Your task to perform on an android device: Open Chrome and go to settings Image 0: 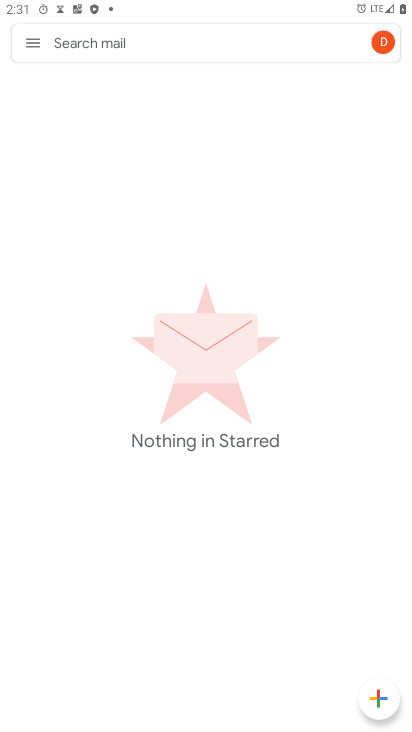
Step 0: press home button
Your task to perform on an android device: Open Chrome and go to settings Image 1: 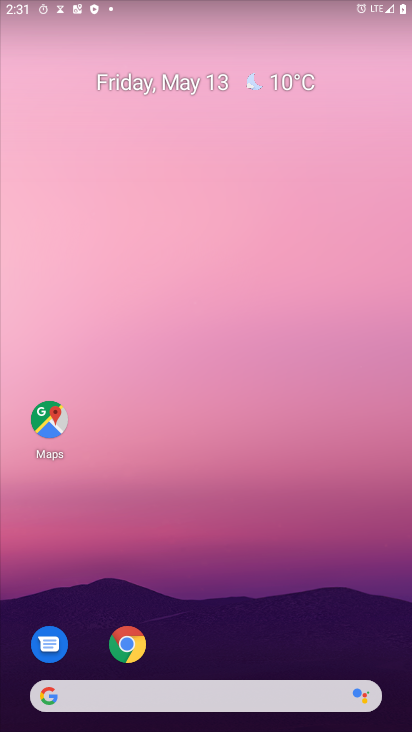
Step 1: click (119, 643)
Your task to perform on an android device: Open Chrome and go to settings Image 2: 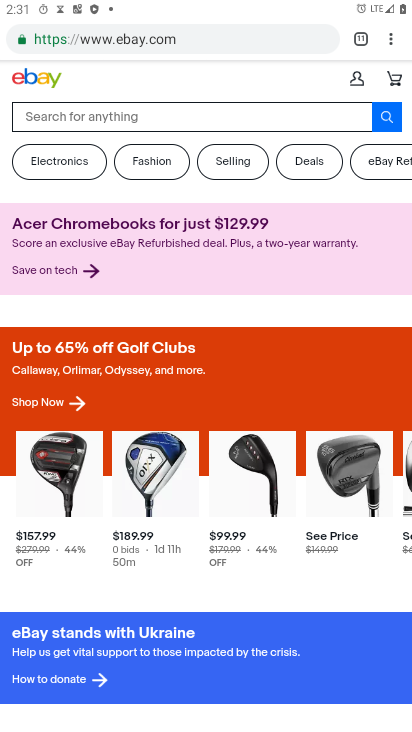
Step 2: click (392, 43)
Your task to perform on an android device: Open Chrome and go to settings Image 3: 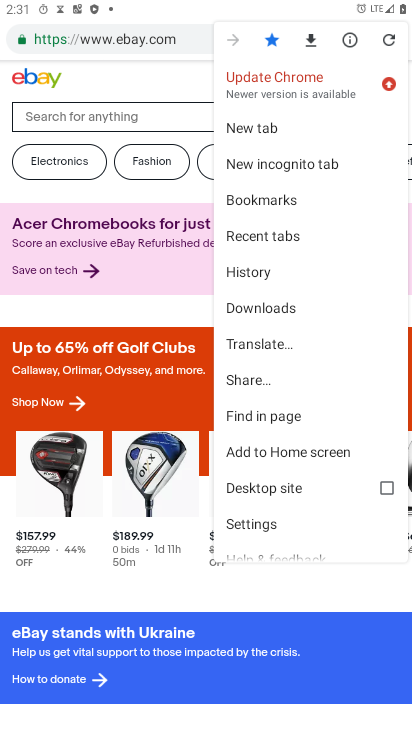
Step 3: click (247, 520)
Your task to perform on an android device: Open Chrome and go to settings Image 4: 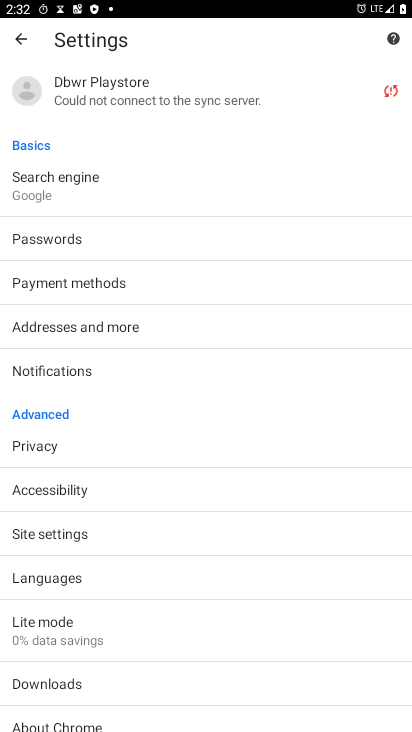
Step 4: task complete